Your task to perform on an android device: turn vacation reply on in the gmail app Image 0: 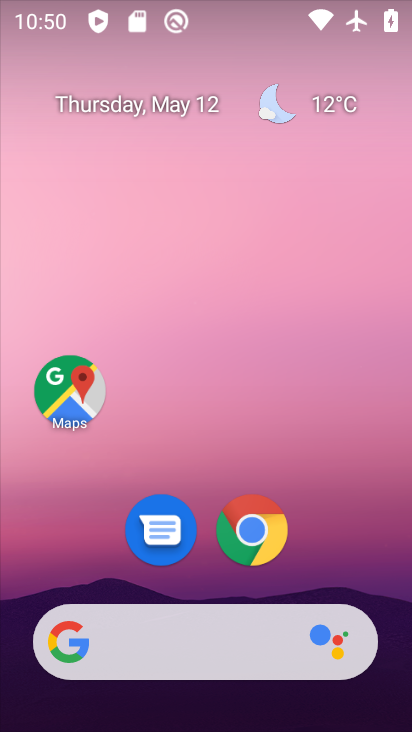
Step 0: press home button
Your task to perform on an android device: turn vacation reply on in the gmail app Image 1: 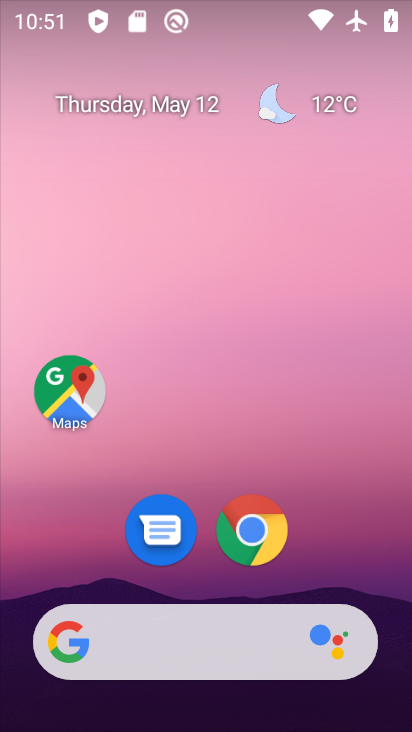
Step 1: drag from (166, 641) to (319, 62)
Your task to perform on an android device: turn vacation reply on in the gmail app Image 2: 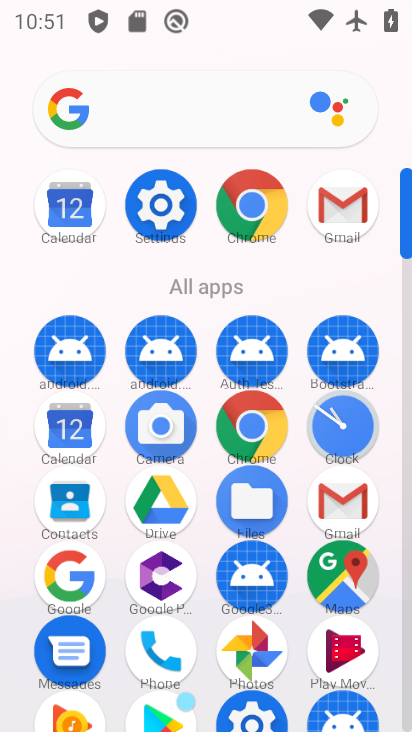
Step 2: click (330, 210)
Your task to perform on an android device: turn vacation reply on in the gmail app Image 3: 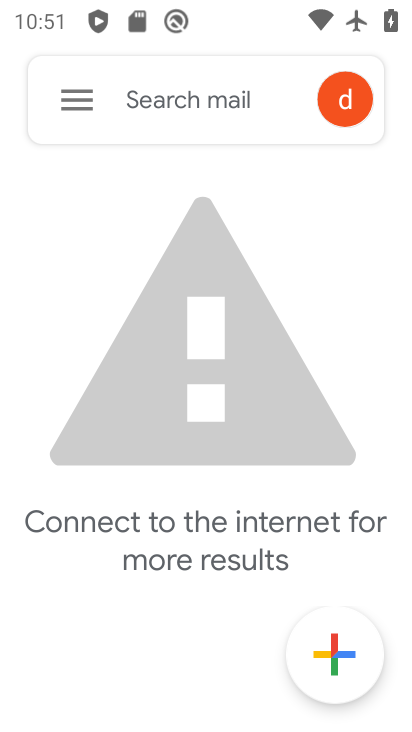
Step 3: drag from (286, 211) to (280, 532)
Your task to perform on an android device: turn vacation reply on in the gmail app Image 4: 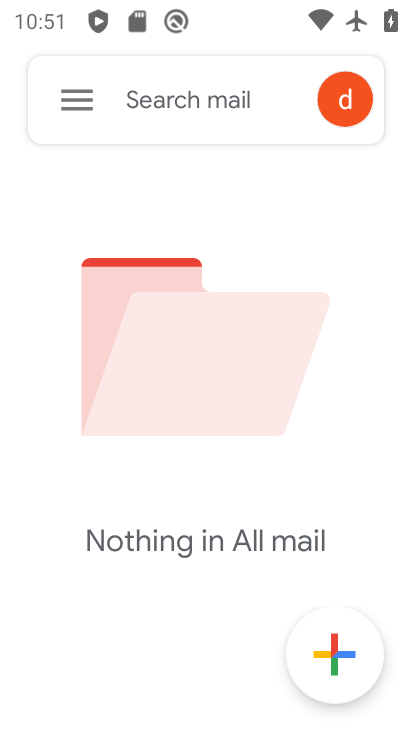
Step 4: click (72, 92)
Your task to perform on an android device: turn vacation reply on in the gmail app Image 5: 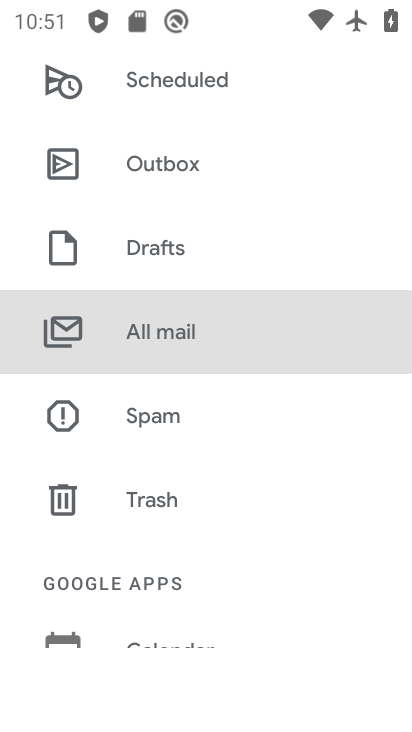
Step 5: drag from (200, 615) to (231, 127)
Your task to perform on an android device: turn vacation reply on in the gmail app Image 6: 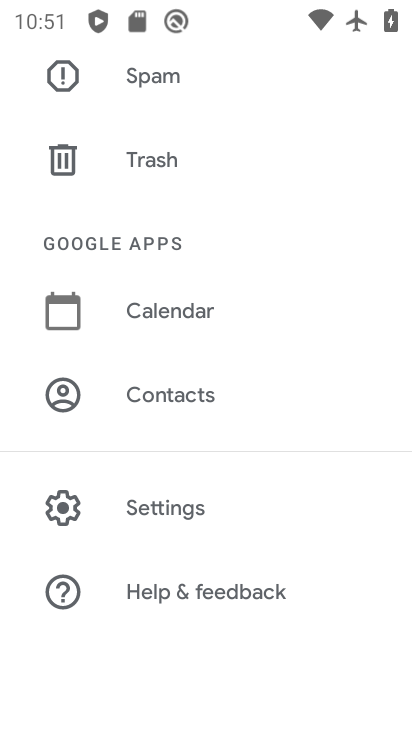
Step 6: click (148, 510)
Your task to perform on an android device: turn vacation reply on in the gmail app Image 7: 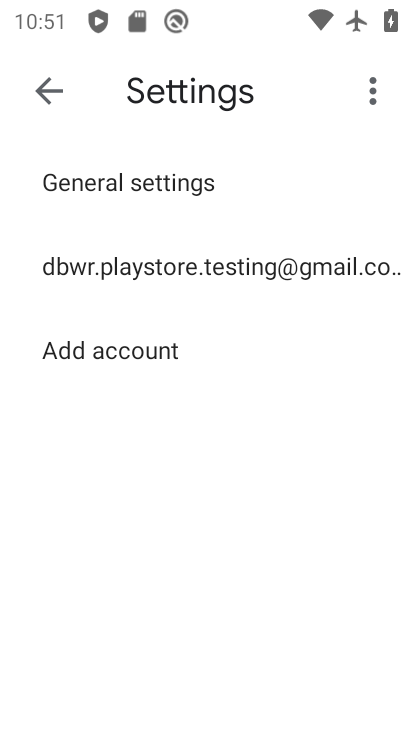
Step 7: click (197, 261)
Your task to perform on an android device: turn vacation reply on in the gmail app Image 8: 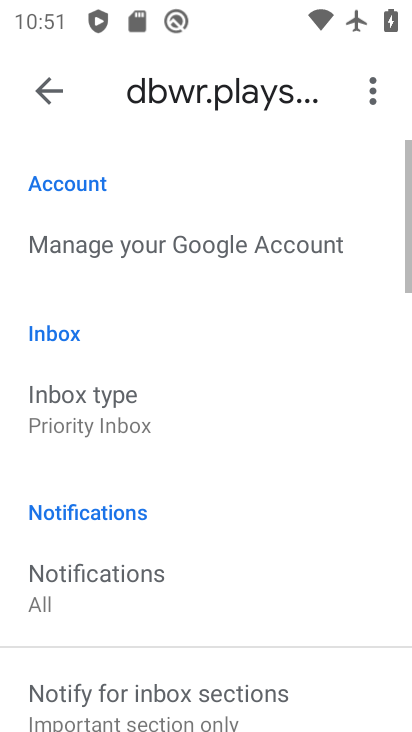
Step 8: drag from (229, 659) to (312, 162)
Your task to perform on an android device: turn vacation reply on in the gmail app Image 9: 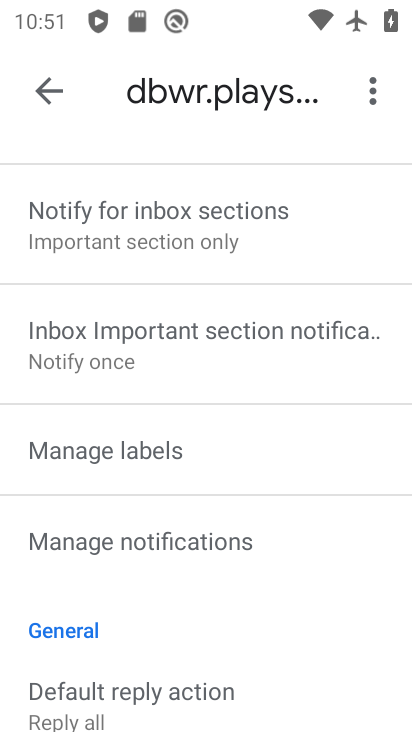
Step 9: drag from (235, 612) to (305, 174)
Your task to perform on an android device: turn vacation reply on in the gmail app Image 10: 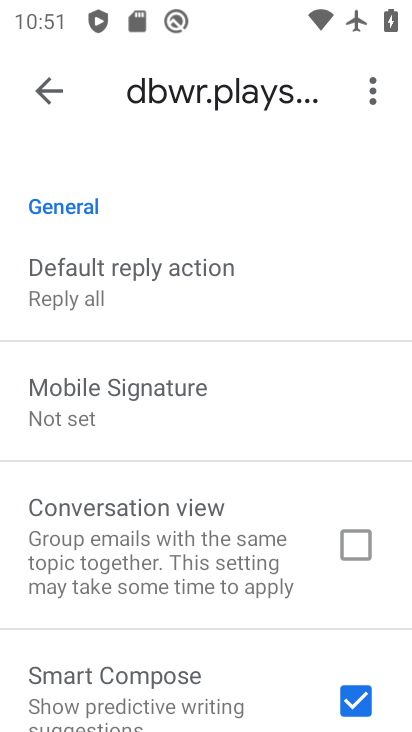
Step 10: drag from (213, 653) to (324, 152)
Your task to perform on an android device: turn vacation reply on in the gmail app Image 11: 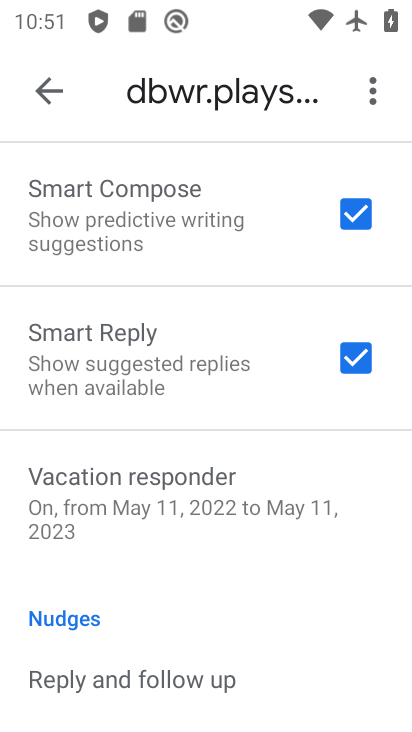
Step 11: click (166, 475)
Your task to perform on an android device: turn vacation reply on in the gmail app Image 12: 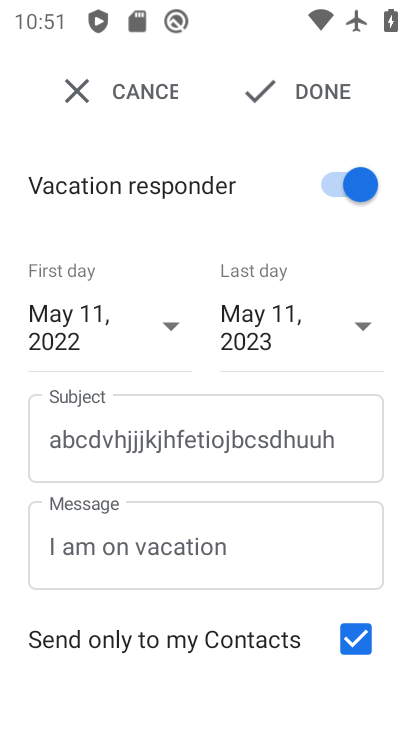
Step 12: task complete